Your task to perform on an android device: Open Google Chrome Image 0: 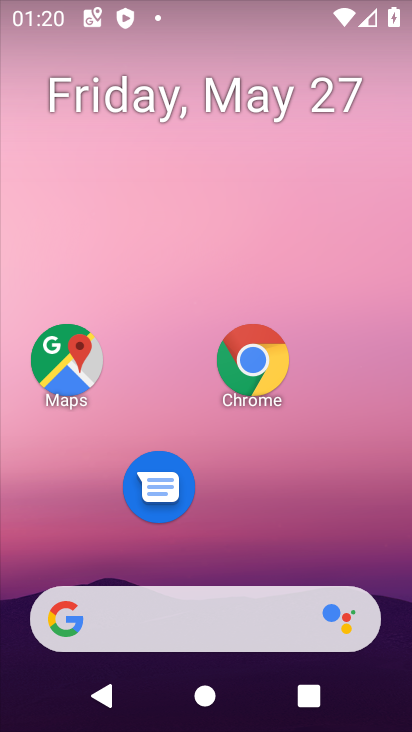
Step 0: click (258, 363)
Your task to perform on an android device: Open Google Chrome Image 1: 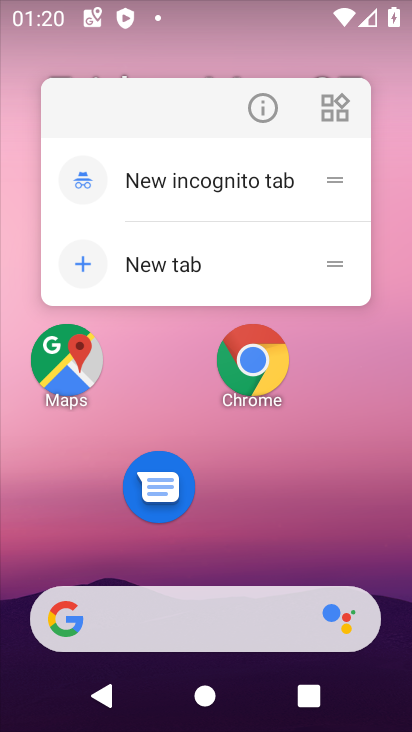
Step 1: click (258, 357)
Your task to perform on an android device: Open Google Chrome Image 2: 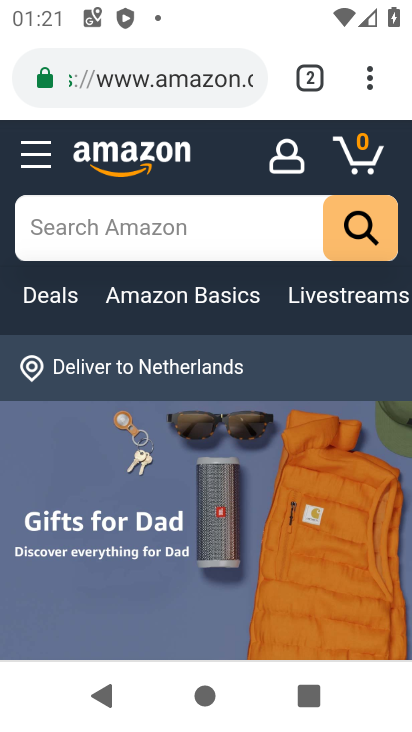
Step 2: task complete